Your task to perform on an android device: open chrome and create a bookmark for the current page Image 0: 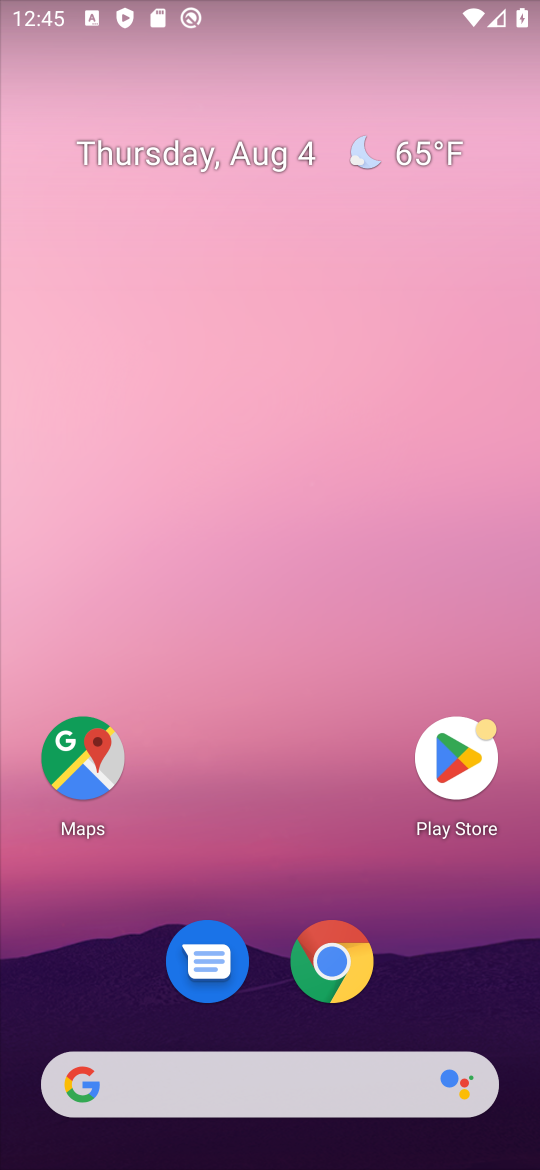
Step 0: click (343, 968)
Your task to perform on an android device: open chrome and create a bookmark for the current page Image 1: 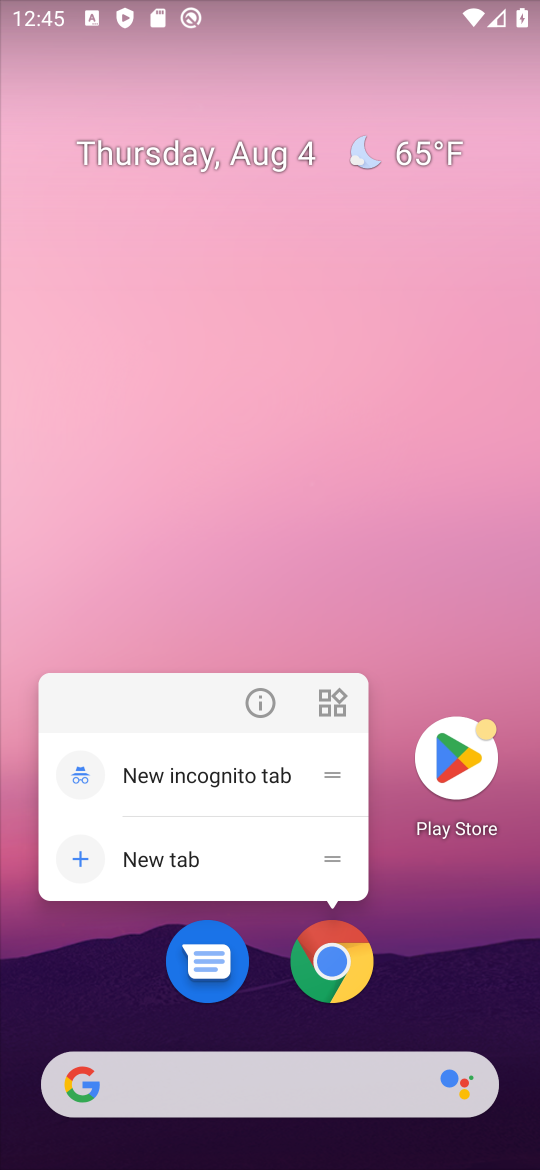
Step 1: click (343, 968)
Your task to perform on an android device: open chrome and create a bookmark for the current page Image 2: 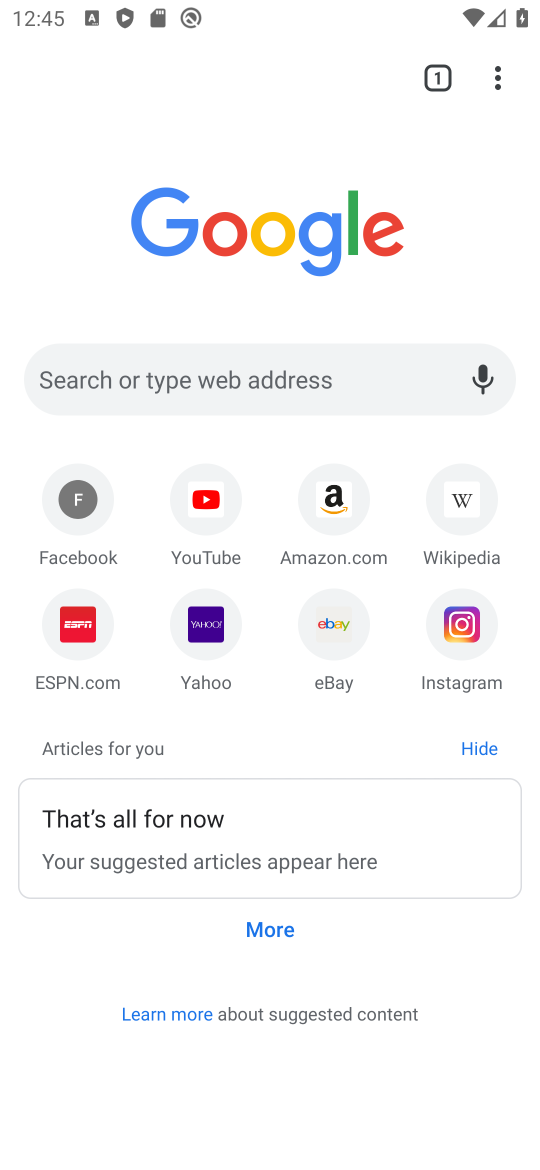
Step 2: click (503, 88)
Your task to perform on an android device: open chrome and create a bookmark for the current page Image 3: 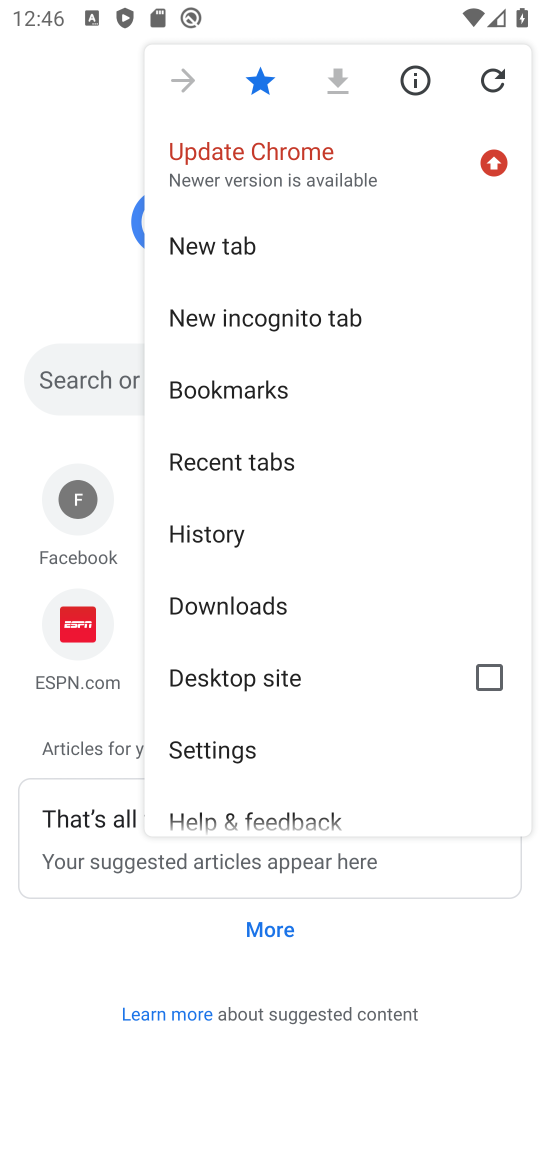
Step 3: task complete